Your task to perform on an android device: open wifi settings Image 0: 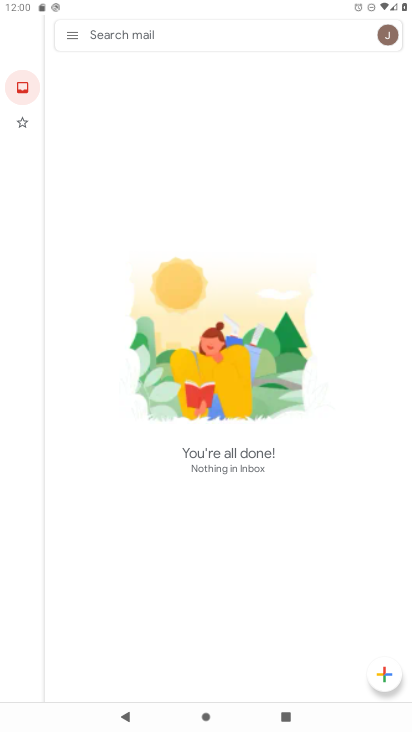
Step 0: press home button
Your task to perform on an android device: open wifi settings Image 1: 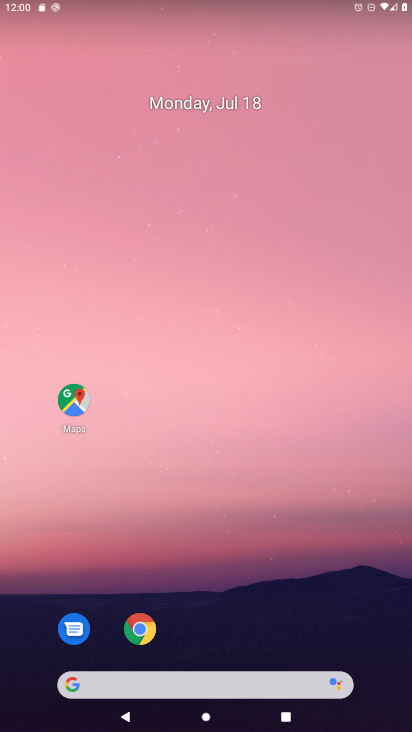
Step 1: drag from (174, 691) to (218, 192)
Your task to perform on an android device: open wifi settings Image 2: 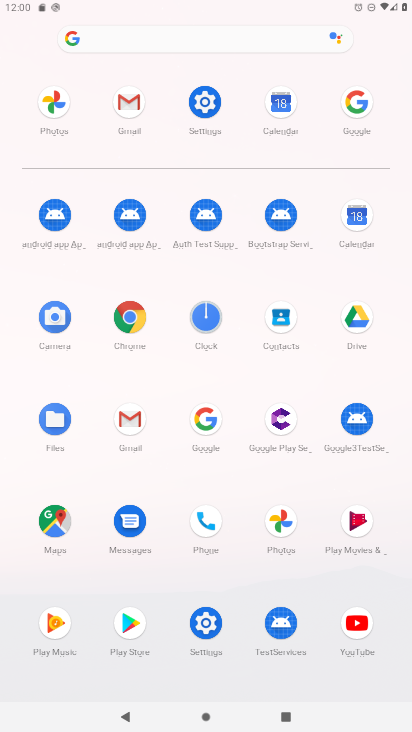
Step 2: click (204, 101)
Your task to perform on an android device: open wifi settings Image 3: 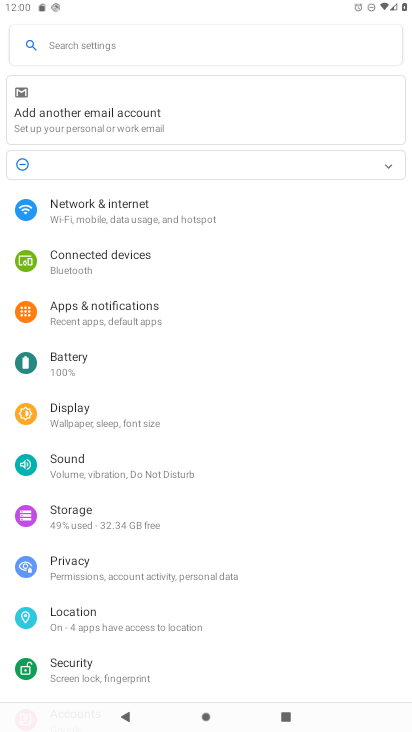
Step 3: click (118, 215)
Your task to perform on an android device: open wifi settings Image 4: 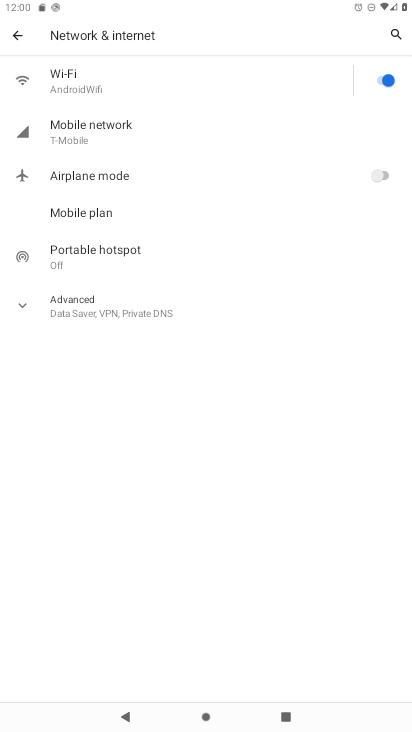
Step 4: click (78, 93)
Your task to perform on an android device: open wifi settings Image 5: 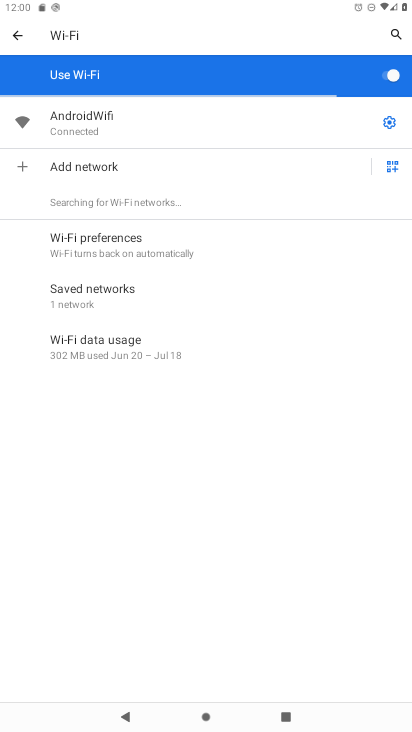
Step 5: click (392, 125)
Your task to perform on an android device: open wifi settings Image 6: 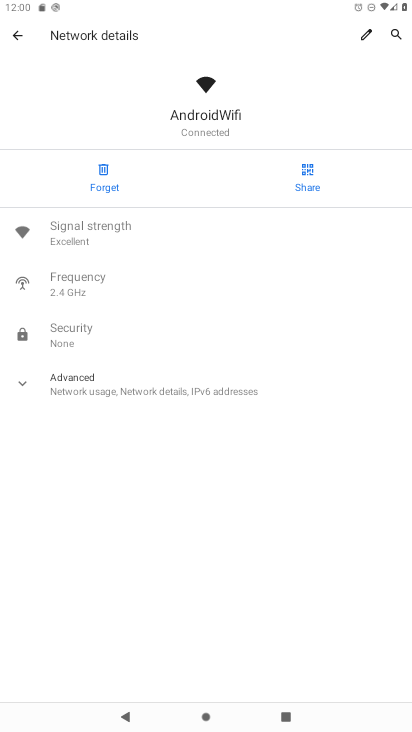
Step 6: task complete